Your task to perform on an android device: turn off sleep mode Image 0: 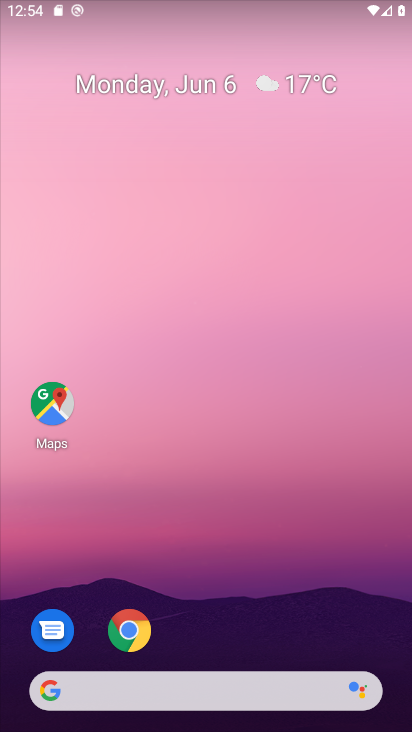
Step 0: drag from (230, 65) to (198, 666)
Your task to perform on an android device: turn off sleep mode Image 1: 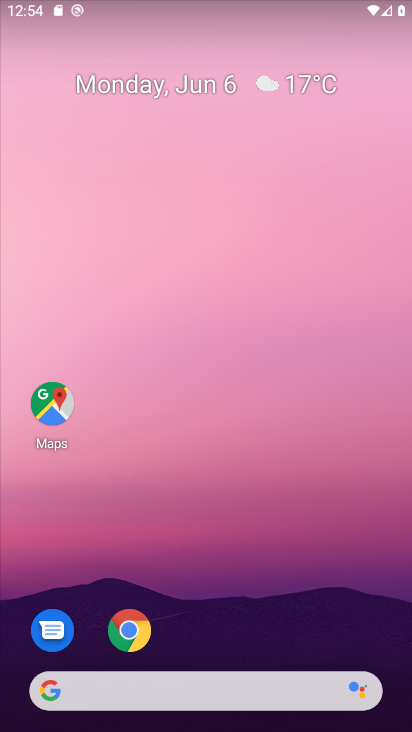
Step 1: drag from (170, 76) to (177, 538)
Your task to perform on an android device: turn off sleep mode Image 2: 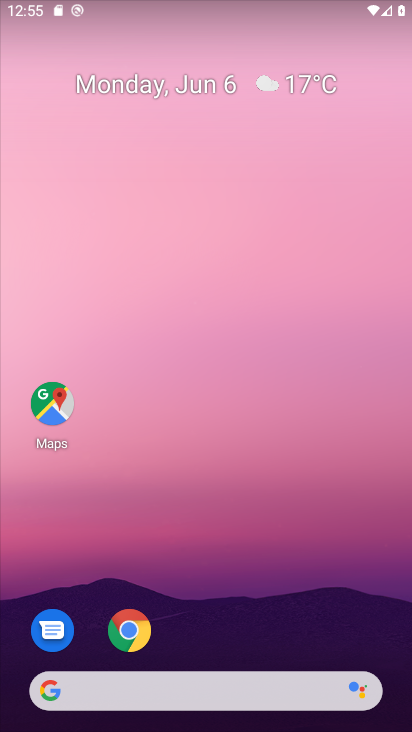
Step 2: drag from (216, 11) to (104, 730)
Your task to perform on an android device: turn off sleep mode Image 3: 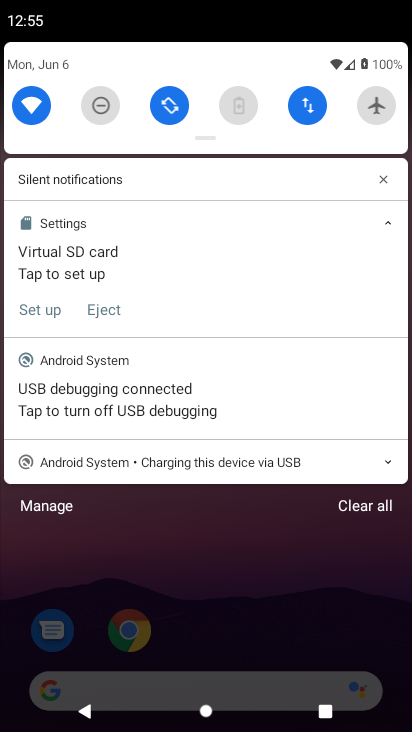
Step 3: drag from (199, 142) to (100, 726)
Your task to perform on an android device: turn off sleep mode Image 4: 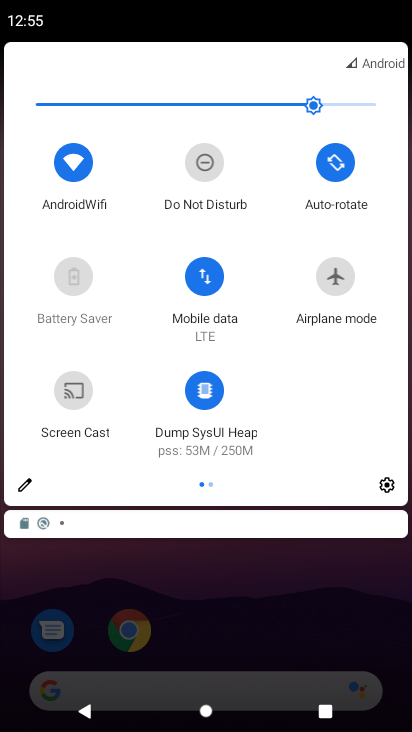
Step 4: click (20, 480)
Your task to perform on an android device: turn off sleep mode Image 5: 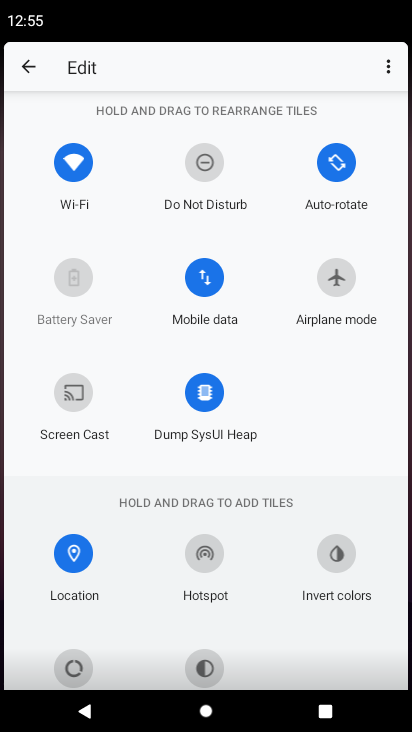
Step 5: task complete